Your task to perform on an android device: Go to display settings Image 0: 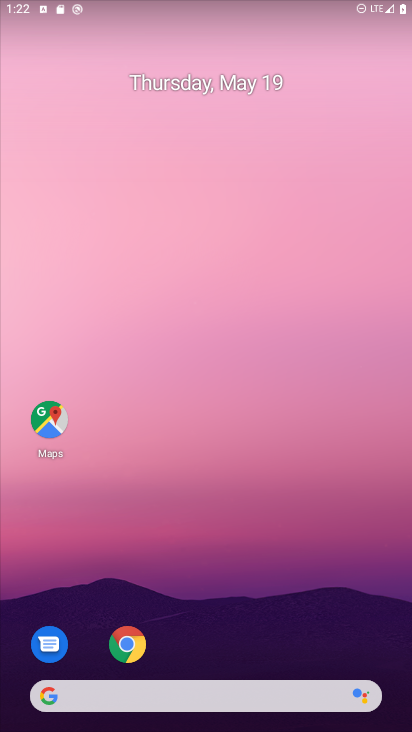
Step 0: drag from (321, 602) to (184, 92)
Your task to perform on an android device: Go to display settings Image 1: 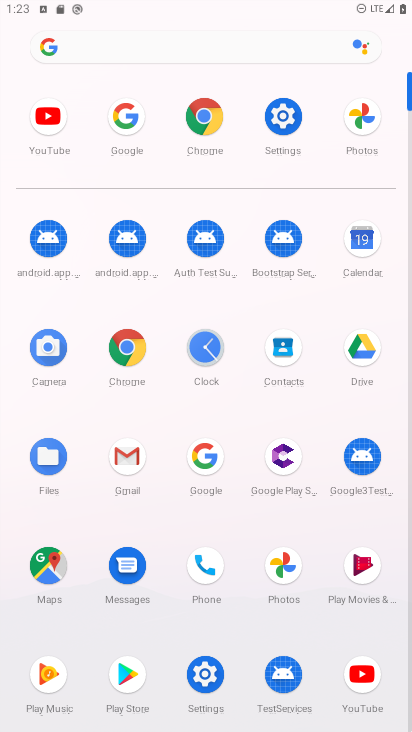
Step 1: click (205, 673)
Your task to perform on an android device: Go to display settings Image 2: 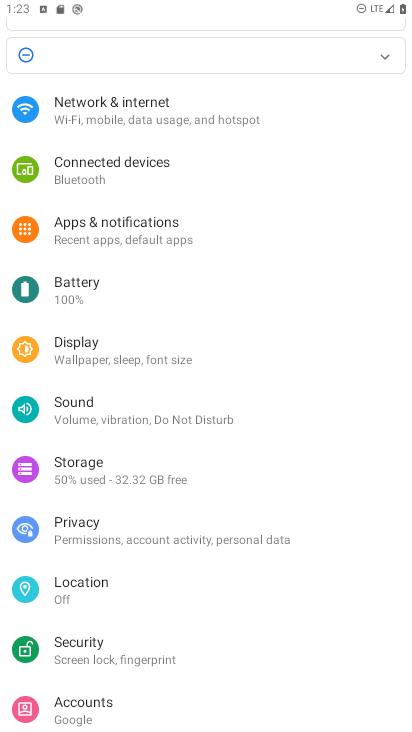
Step 2: click (112, 345)
Your task to perform on an android device: Go to display settings Image 3: 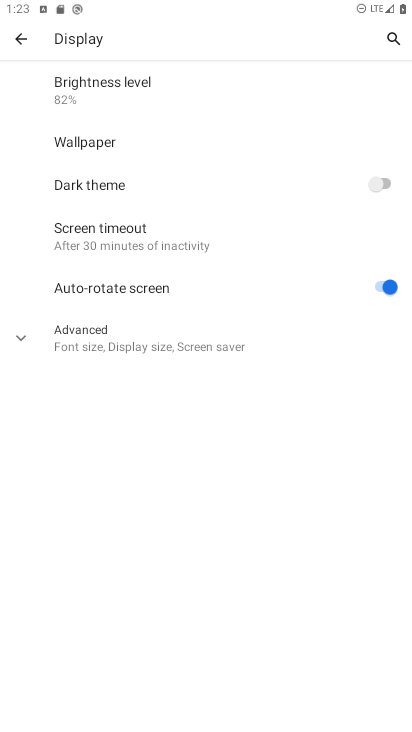
Step 3: task complete